Your task to perform on an android device: Search for seafood restaurants on Google Maps Image 0: 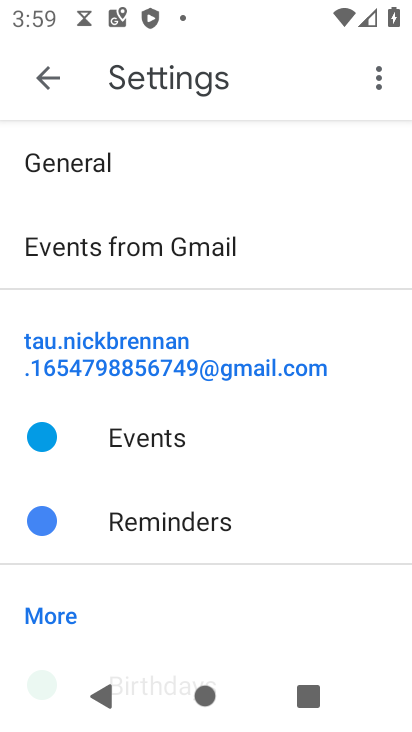
Step 0: press back button
Your task to perform on an android device: Search for seafood restaurants on Google Maps Image 1: 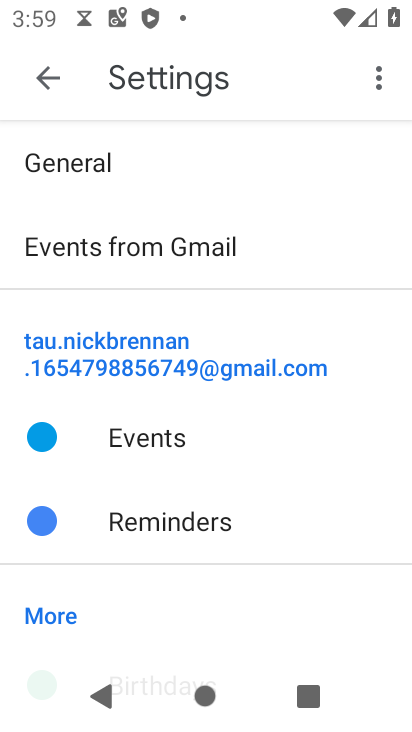
Step 1: press back button
Your task to perform on an android device: Search for seafood restaurants on Google Maps Image 2: 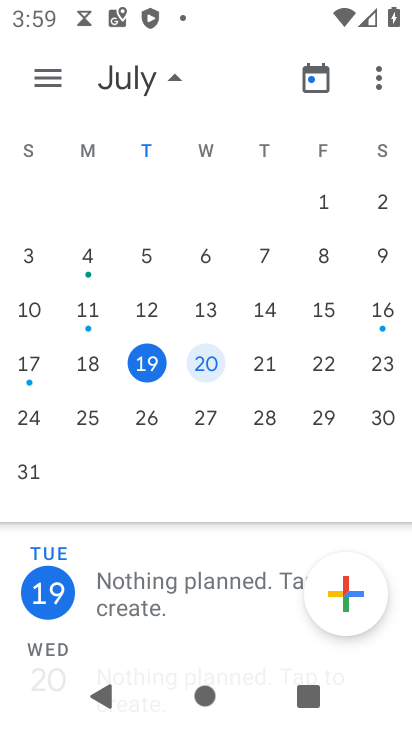
Step 2: press back button
Your task to perform on an android device: Search for seafood restaurants on Google Maps Image 3: 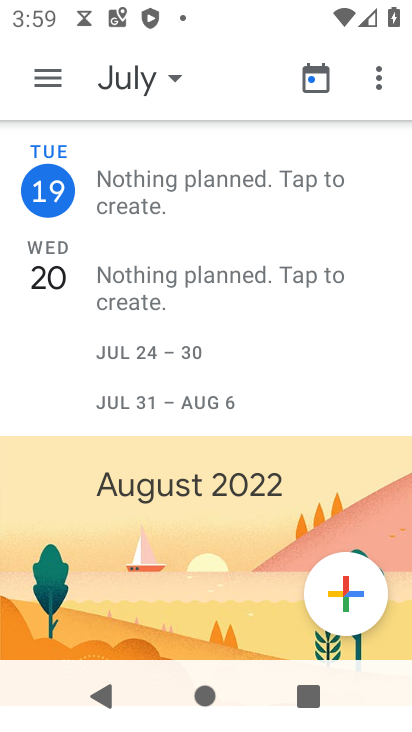
Step 3: press back button
Your task to perform on an android device: Search for seafood restaurants on Google Maps Image 4: 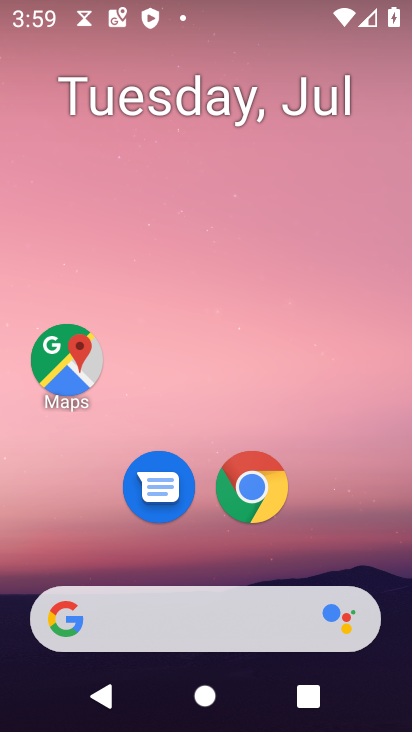
Step 4: click (81, 340)
Your task to perform on an android device: Search for seafood restaurants on Google Maps Image 5: 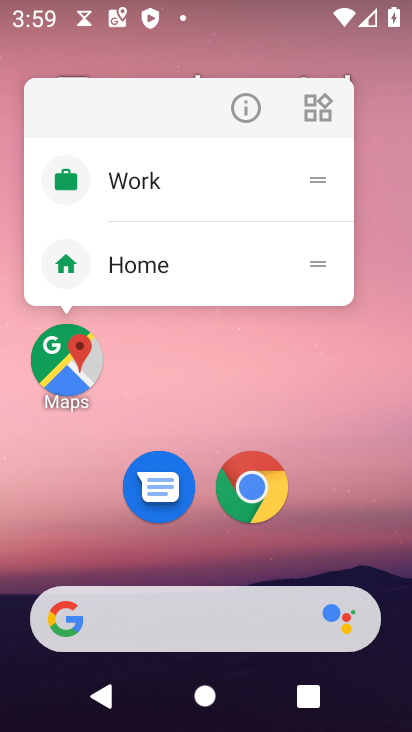
Step 5: click (62, 348)
Your task to perform on an android device: Search for seafood restaurants on Google Maps Image 6: 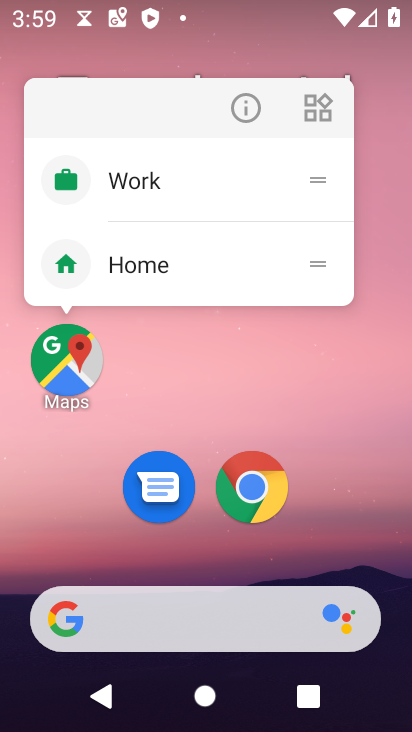
Step 6: click (74, 354)
Your task to perform on an android device: Search for seafood restaurants on Google Maps Image 7: 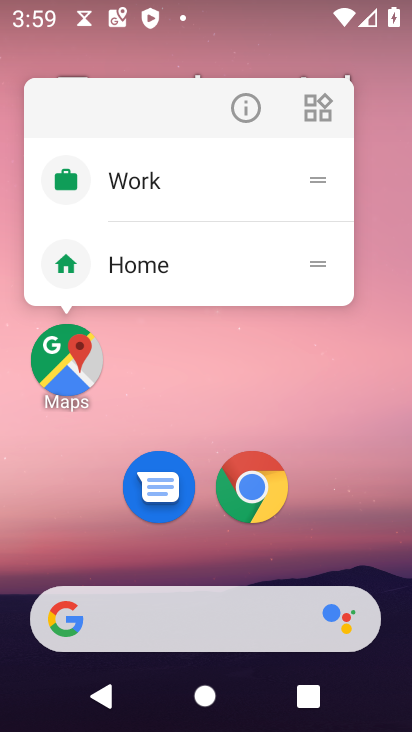
Step 7: click (60, 347)
Your task to perform on an android device: Search for seafood restaurants on Google Maps Image 8: 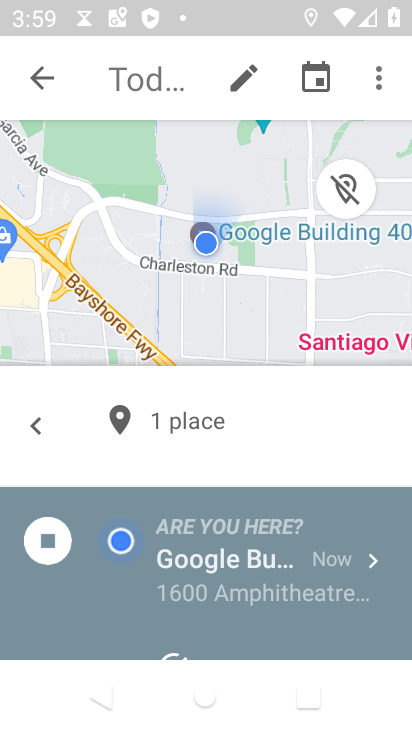
Step 8: click (48, 63)
Your task to perform on an android device: Search for seafood restaurants on Google Maps Image 9: 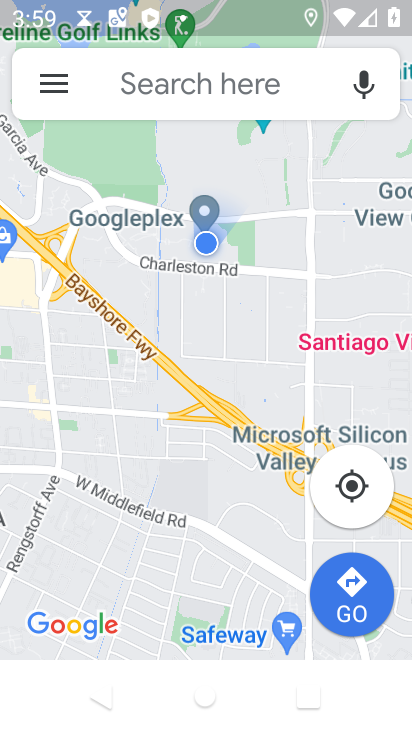
Step 9: click (181, 73)
Your task to perform on an android device: Search for seafood restaurants on Google Maps Image 10: 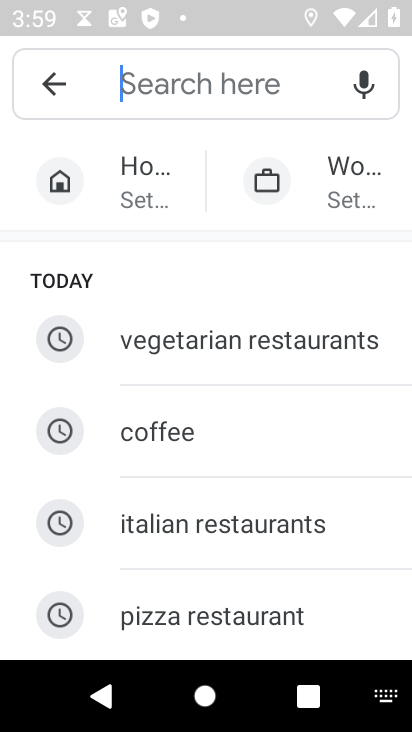
Step 10: drag from (281, 619) to (277, 87)
Your task to perform on an android device: Search for seafood restaurants on Google Maps Image 11: 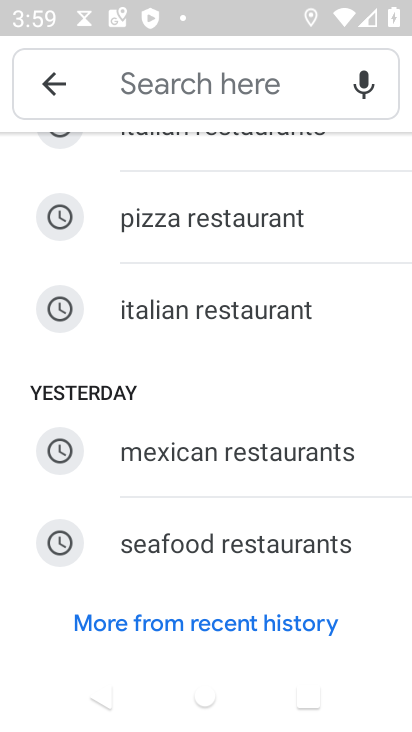
Step 11: click (151, 554)
Your task to perform on an android device: Search for seafood restaurants on Google Maps Image 12: 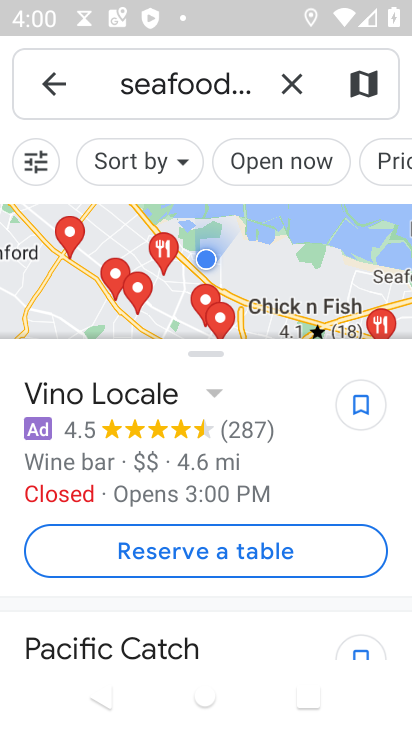
Step 12: task complete